Your task to perform on an android device: Open eBay Image 0: 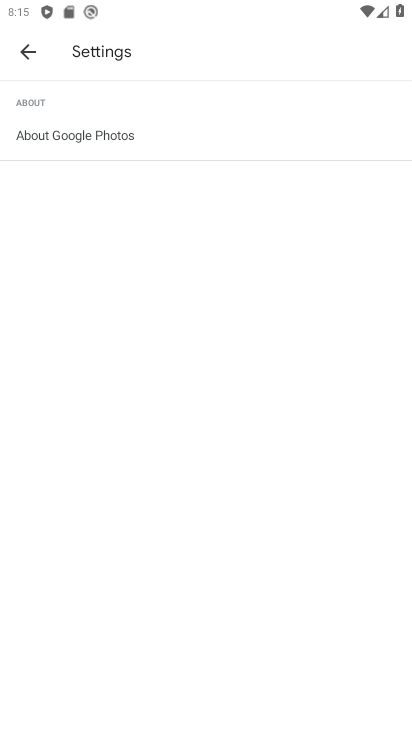
Step 0: press back button
Your task to perform on an android device: Open eBay Image 1: 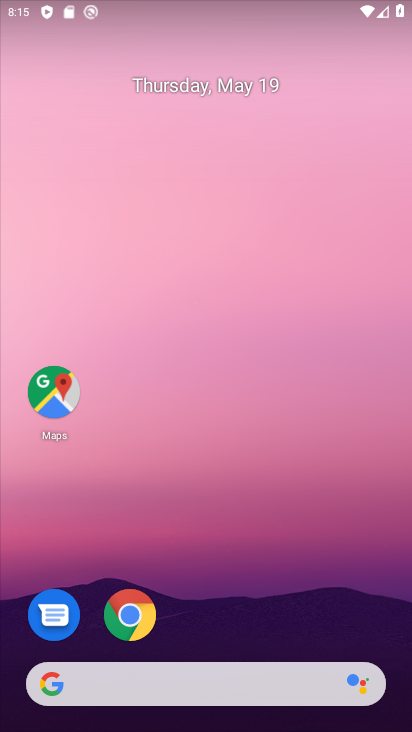
Step 1: drag from (236, 617) to (239, 173)
Your task to perform on an android device: Open eBay Image 2: 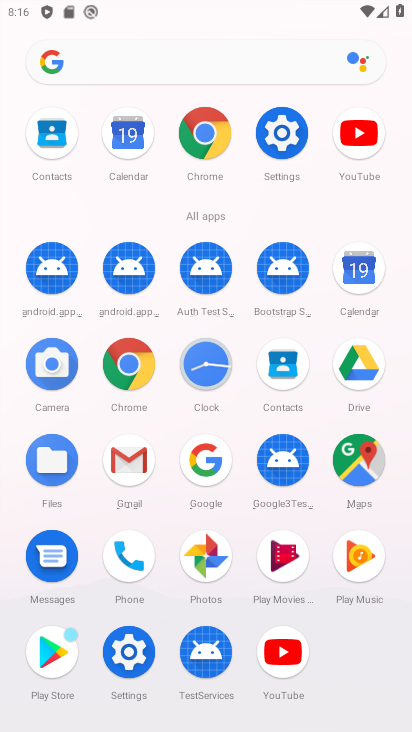
Step 2: click (201, 458)
Your task to perform on an android device: Open eBay Image 3: 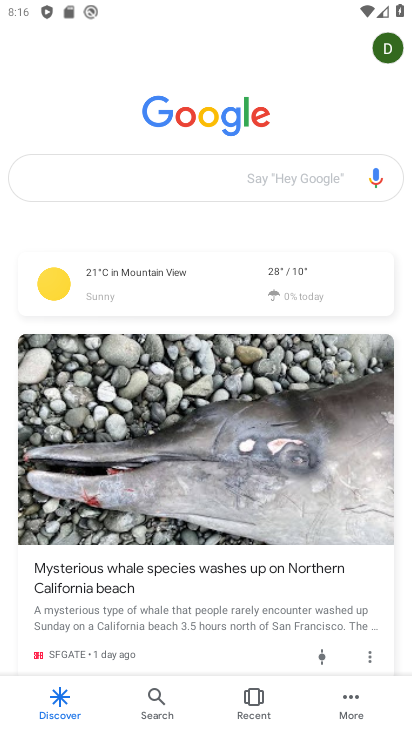
Step 3: click (182, 159)
Your task to perform on an android device: Open eBay Image 4: 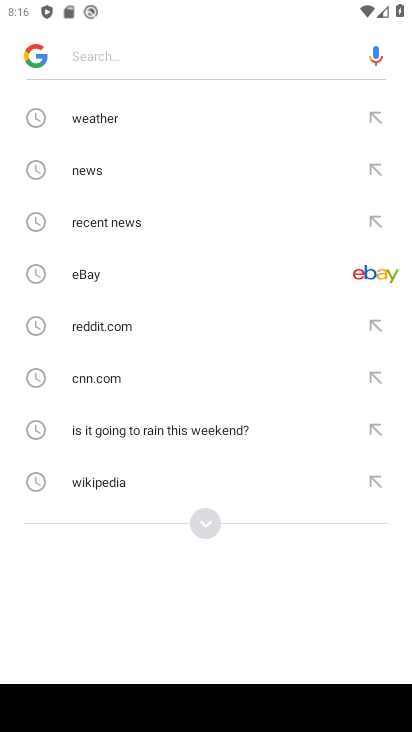
Step 4: type "eBay"
Your task to perform on an android device: Open eBay Image 5: 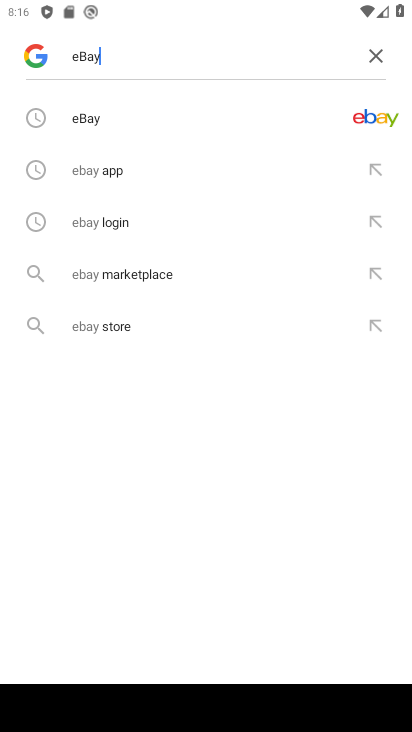
Step 5: click (84, 123)
Your task to perform on an android device: Open eBay Image 6: 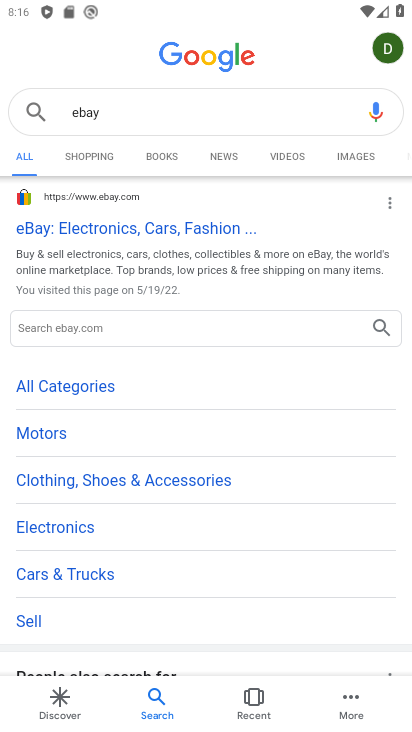
Step 6: click (106, 225)
Your task to perform on an android device: Open eBay Image 7: 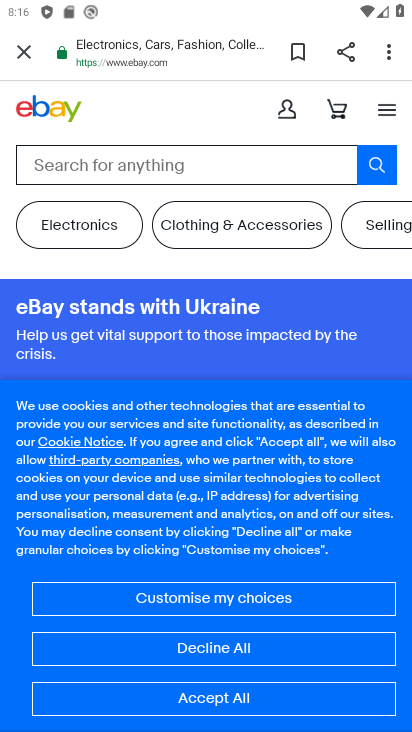
Step 7: task complete